Your task to perform on an android device: change notification settings in the gmail app Image 0: 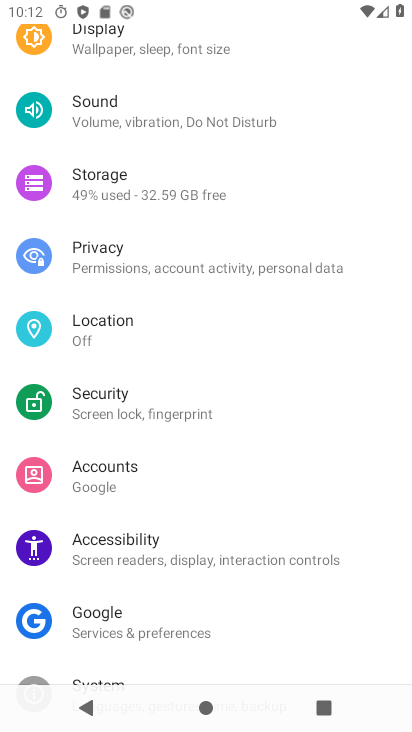
Step 0: drag from (295, 118) to (262, 449)
Your task to perform on an android device: change notification settings in the gmail app Image 1: 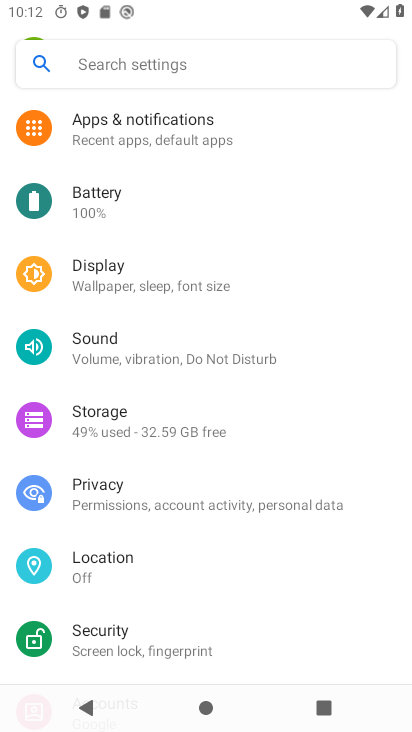
Step 1: click (254, 140)
Your task to perform on an android device: change notification settings in the gmail app Image 2: 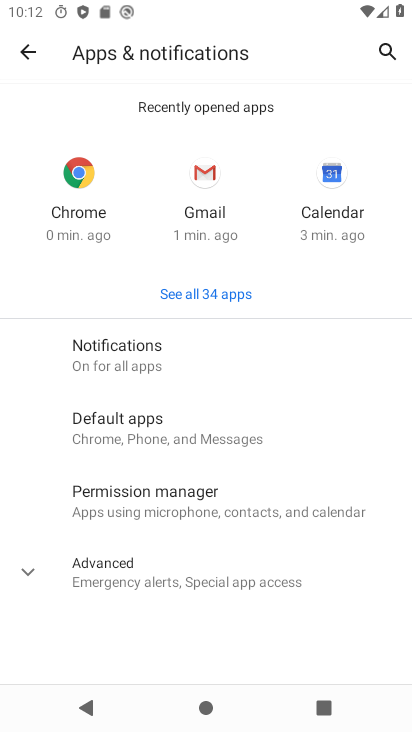
Step 2: click (150, 349)
Your task to perform on an android device: change notification settings in the gmail app Image 3: 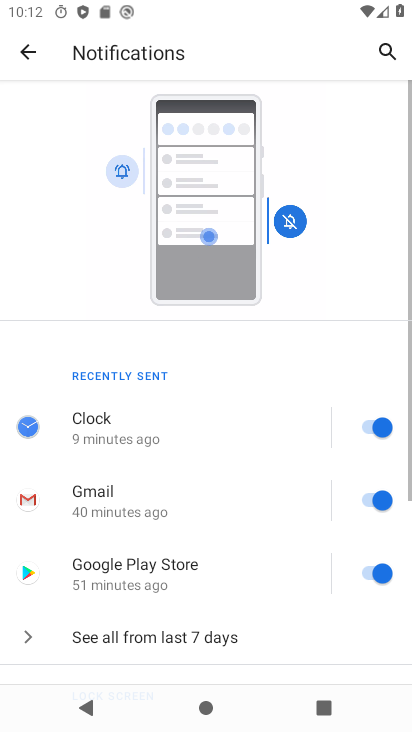
Step 3: drag from (282, 560) to (269, 139)
Your task to perform on an android device: change notification settings in the gmail app Image 4: 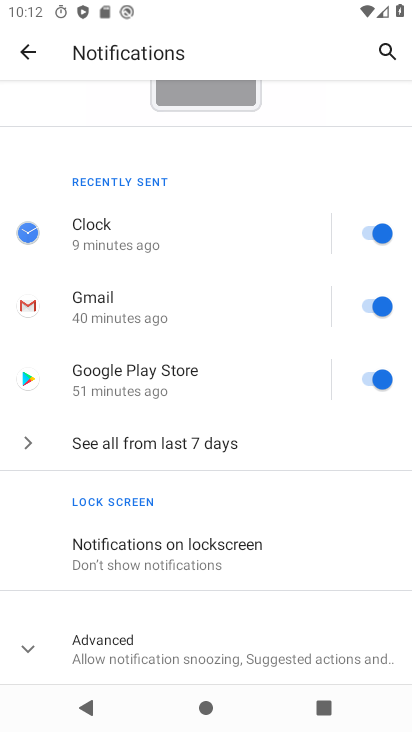
Step 4: click (223, 638)
Your task to perform on an android device: change notification settings in the gmail app Image 5: 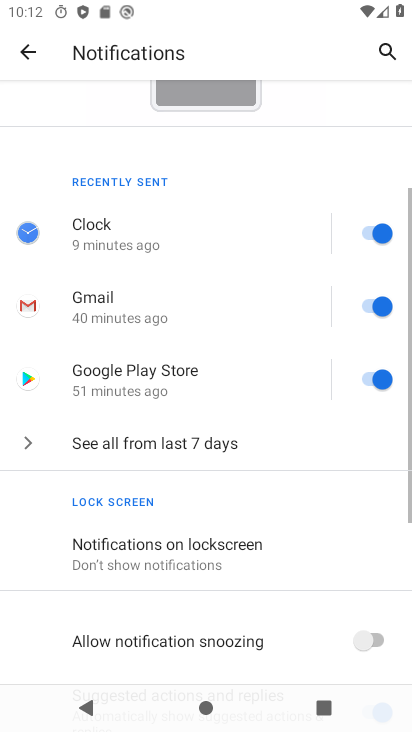
Step 5: drag from (317, 567) to (273, 125)
Your task to perform on an android device: change notification settings in the gmail app Image 6: 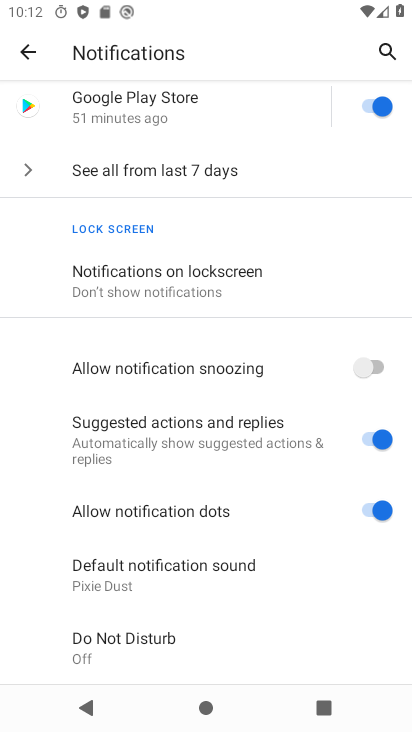
Step 6: click (368, 380)
Your task to perform on an android device: change notification settings in the gmail app Image 7: 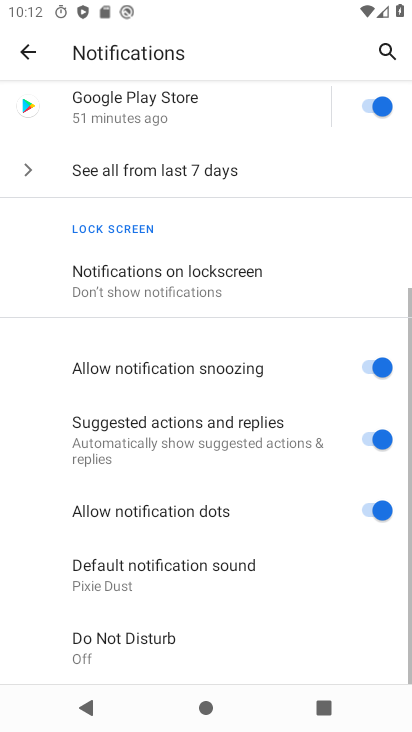
Step 7: click (375, 434)
Your task to perform on an android device: change notification settings in the gmail app Image 8: 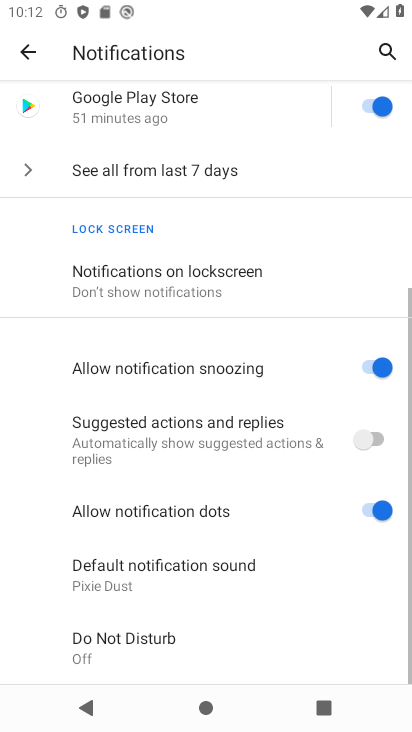
Step 8: click (379, 516)
Your task to perform on an android device: change notification settings in the gmail app Image 9: 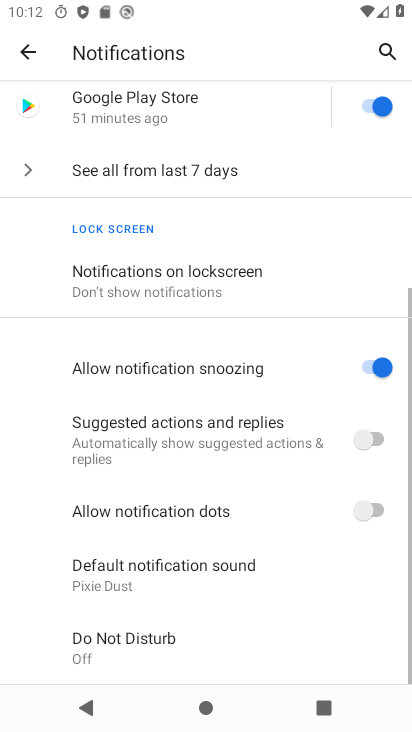
Step 9: task complete